Your task to perform on an android device: Go to Amazon Image 0: 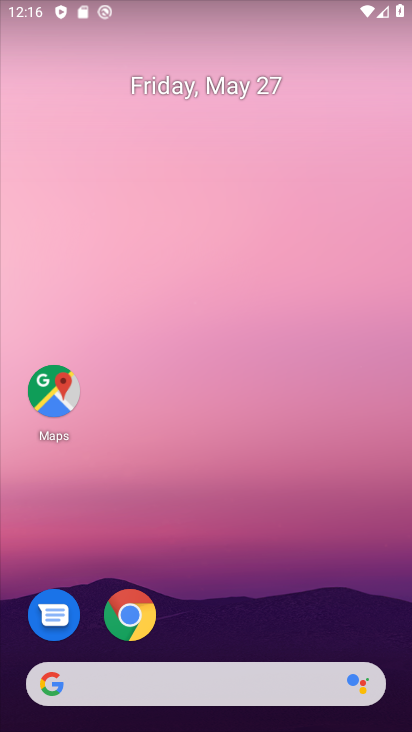
Step 0: drag from (203, 569) to (277, 146)
Your task to perform on an android device: Go to Amazon Image 1: 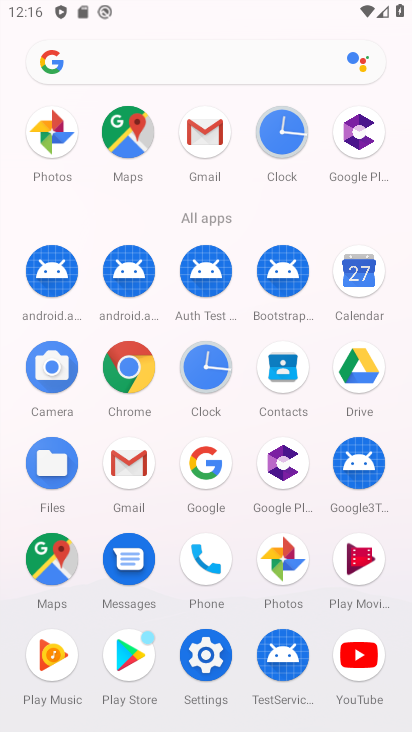
Step 1: click (140, 379)
Your task to perform on an android device: Go to Amazon Image 2: 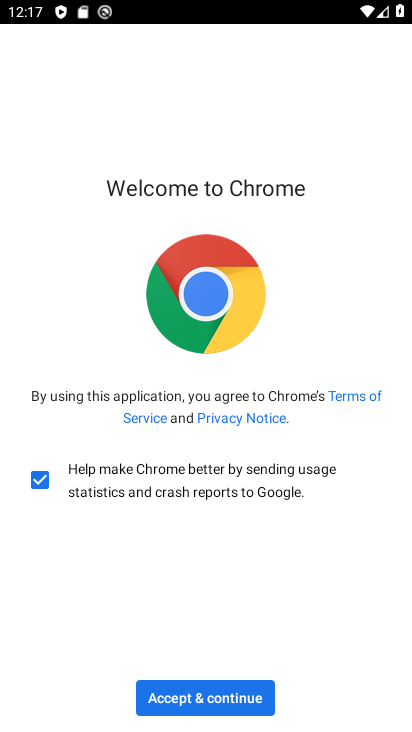
Step 2: click (180, 716)
Your task to perform on an android device: Go to Amazon Image 3: 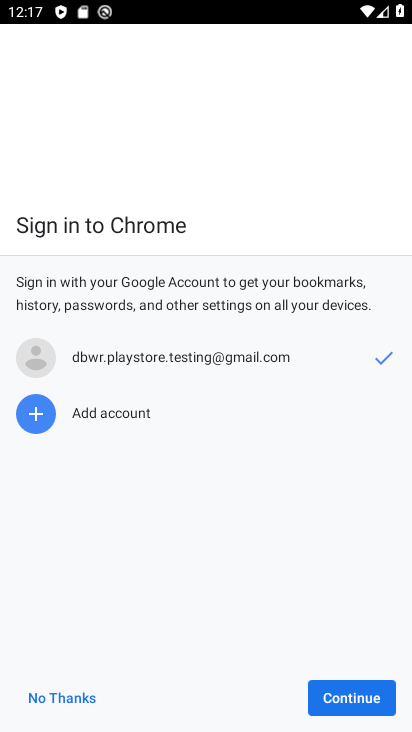
Step 3: click (323, 700)
Your task to perform on an android device: Go to Amazon Image 4: 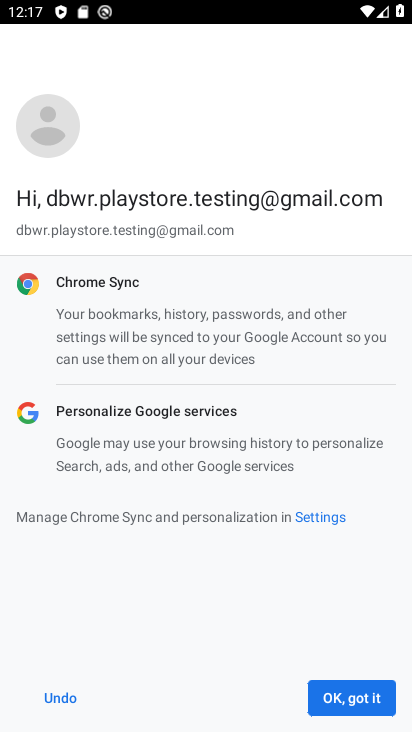
Step 4: click (378, 710)
Your task to perform on an android device: Go to Amazon Image 5: 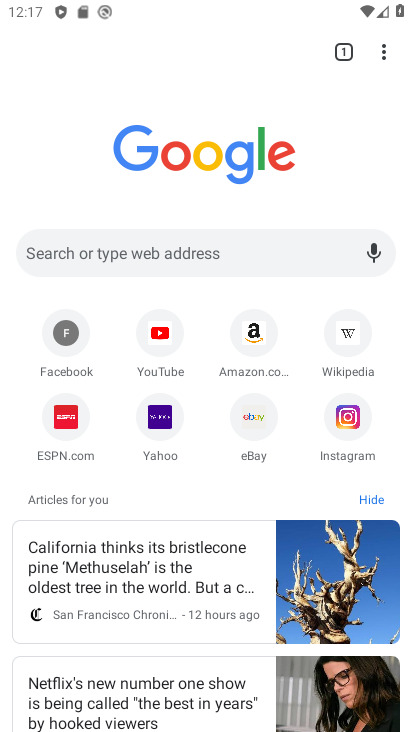
Step 5: click (237, 342)
Your task to perform on an android device: Go to Amazon Image 6: 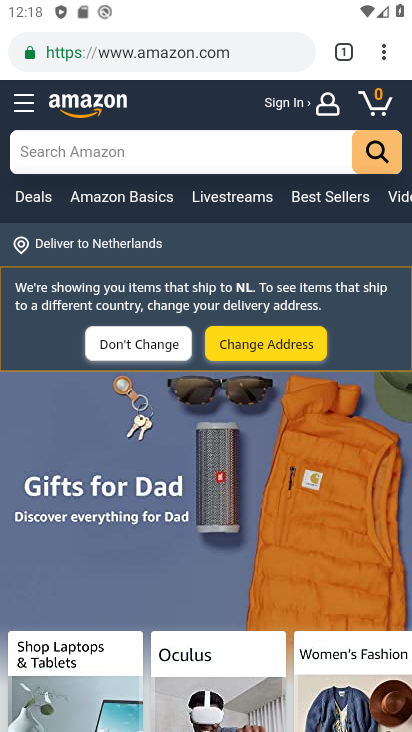
Step 6: task complete